Your task to perform on an android device: check the backup settings in the google photos Image 0: 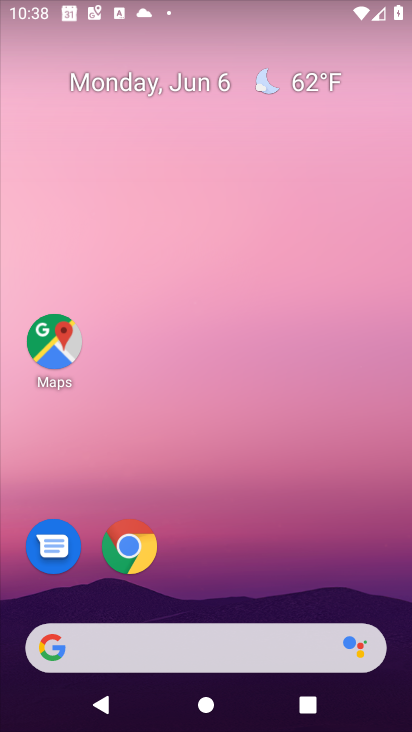
Step 0: drag from (393, 620) to (313, 44)
Your task to perform on an android device: check the backup settings in the google photos Image 1: 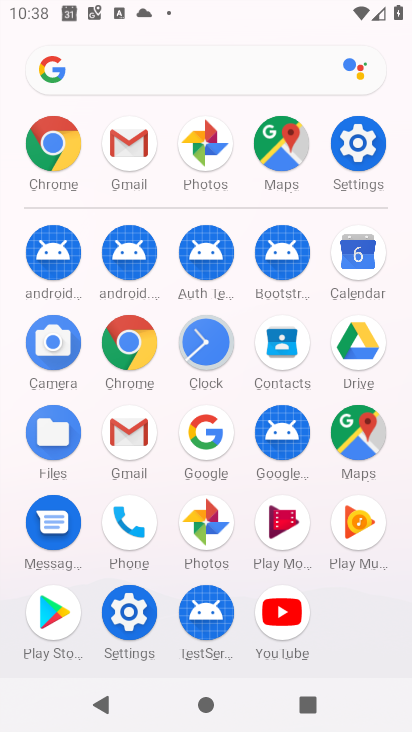
Step 1: click (207, 523)
Your task to perform on an android device: check the backup settings in the google photos Image 2: 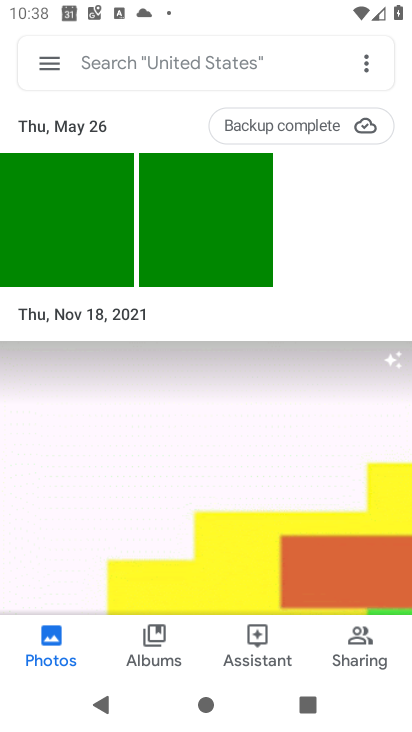
Step 2: click (49, 65)
Your task to perform on an android device: check the backup settings in the google photos Image 3: 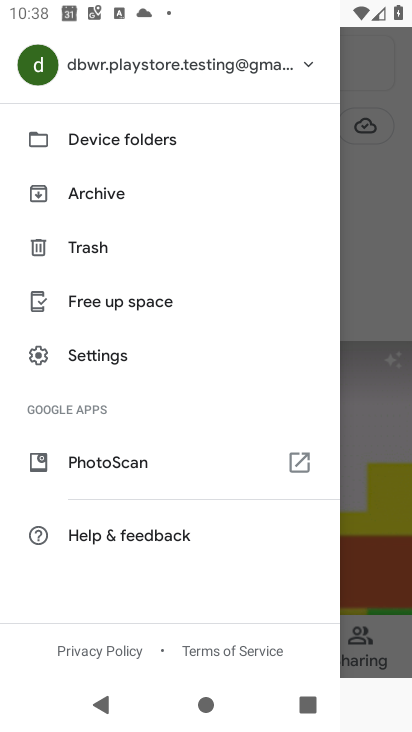
Step 3: click (92, 358)
Your task to perform on an android device: check the backup settings in the google photos Image 4: 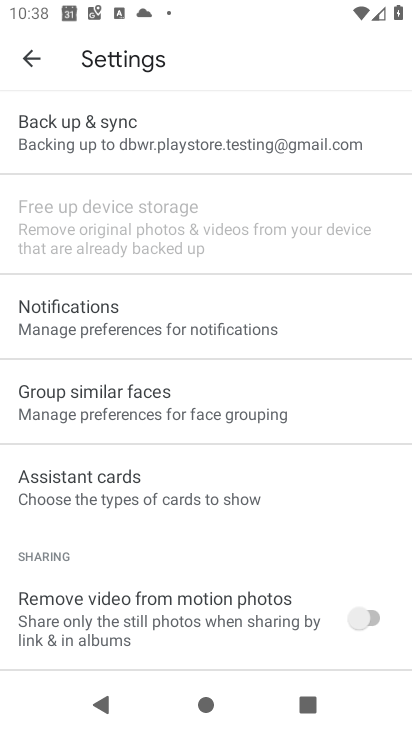
Step 4: click (103, 122)
Your task to perform on an android device: check the backup settings in the google photos Image 5: 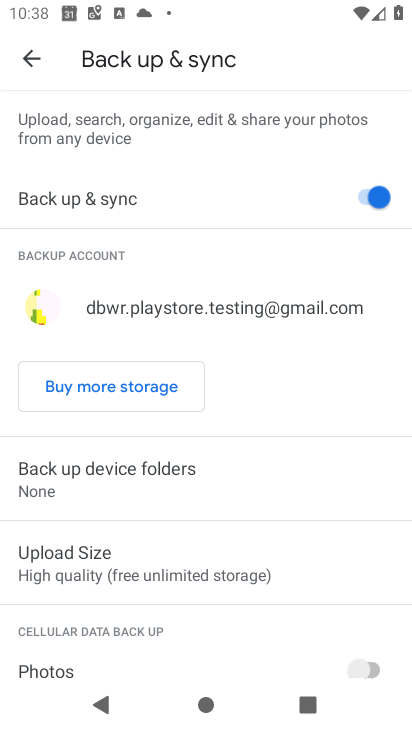
Step 5: task complete